Your task to perform on an android device: Do I have any events tomorrow? Image 0: 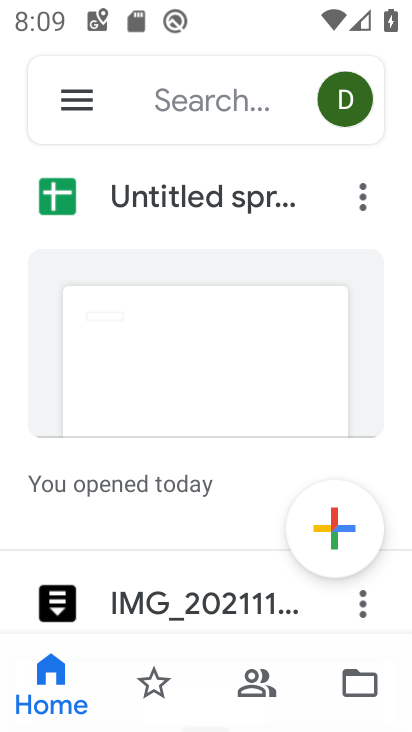
Step 0: press back button
Your task to perform on an android device: Do I have any events tomorrow? Image 1: 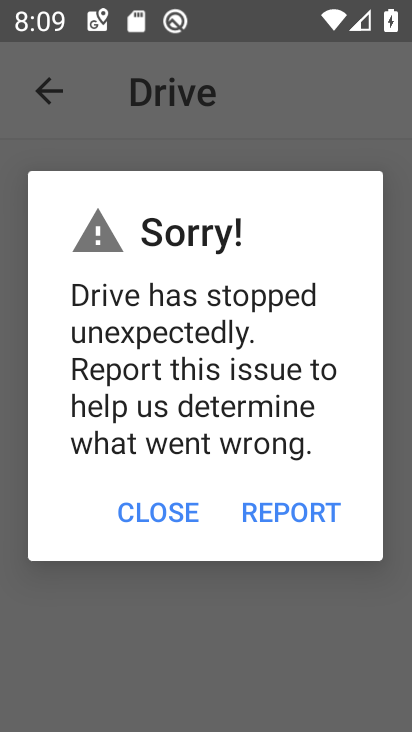
Step 1: press home button
Your task to perform on an android device: Do I have any events tomorrow? Image 2: 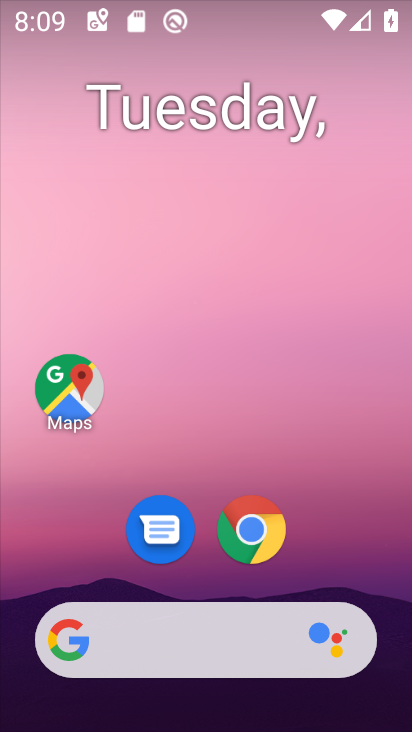
Step 2: drag from (198, 514) to (246, 1)
Your task to perform on an android device: Do I have any events tomorrow? Image 3: 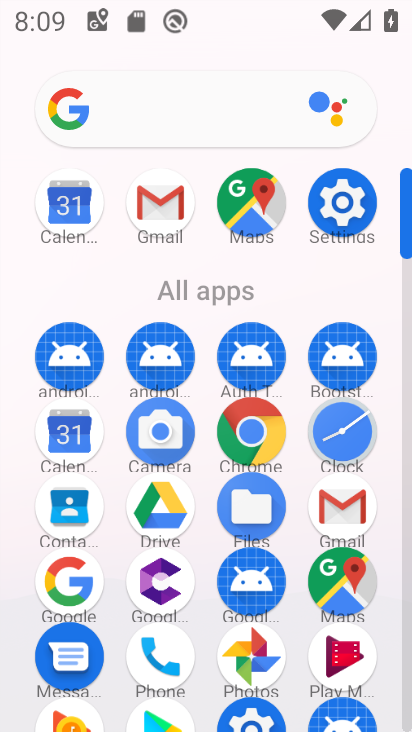
Step 3: click (70, 436)
Your task to perform on an android device: Do I have any events tomorrow? Image 4: 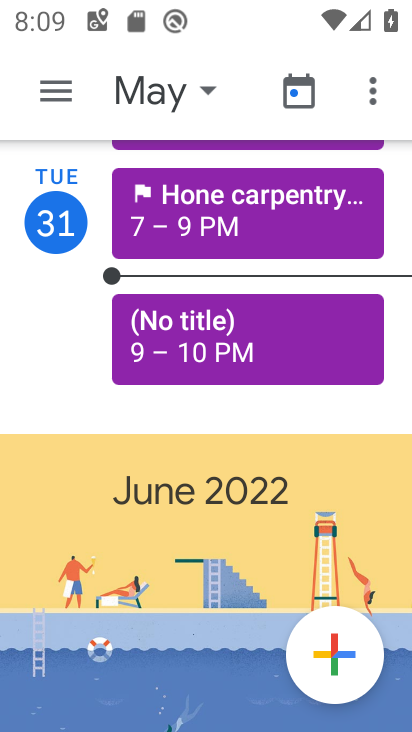
Step 4: drag from (217, 620) to (291, 115)
Your task to perform on an android device: Do I have any events tomorrow? Image 5: 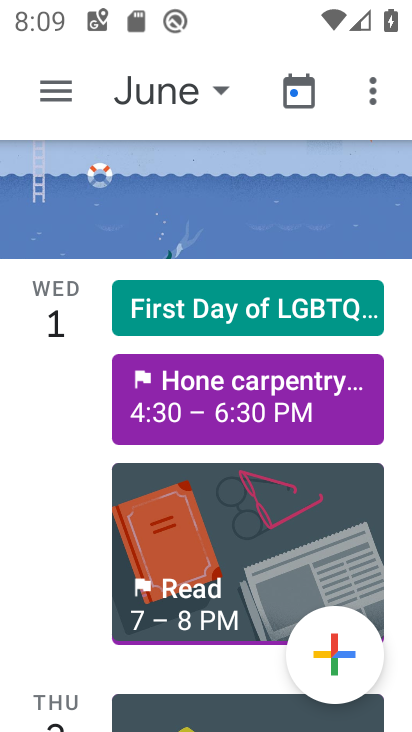
Step 5: drag from (189, 684) to (266, 161)
Your task to perform on an android device: Do I have any events tomorrow? Image 6: 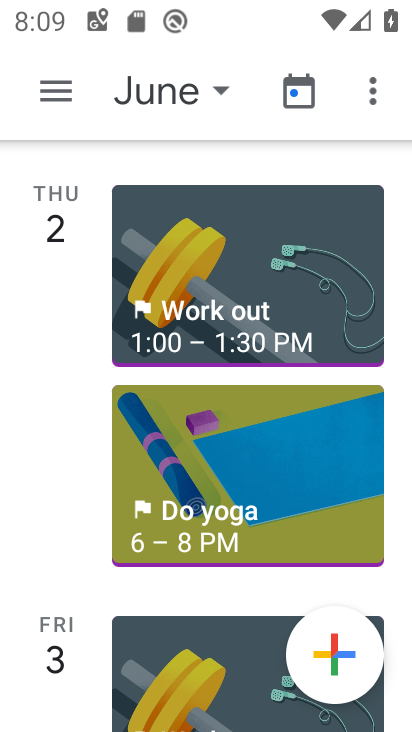
Step 6: click (229, 493)
Your task to perform on an android device: Do I have any events tomorrow? Image 7: 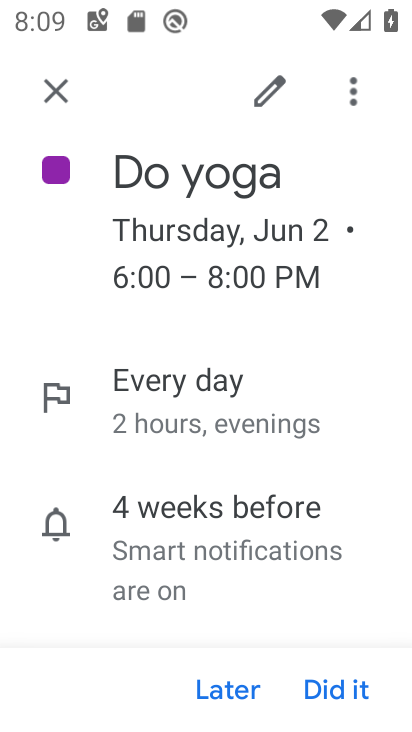
Step 7: task complete